Your task to perform on an android device: Go to Maps Image 0: 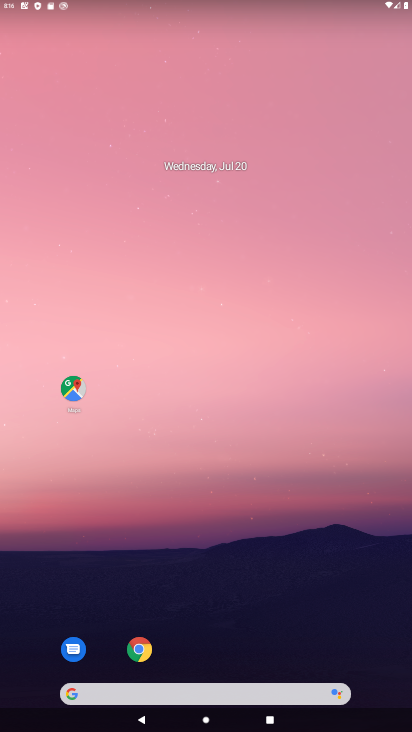
Step 0: click (80, 402)
Your task to perform on an android device: Go to Maps Image 1: 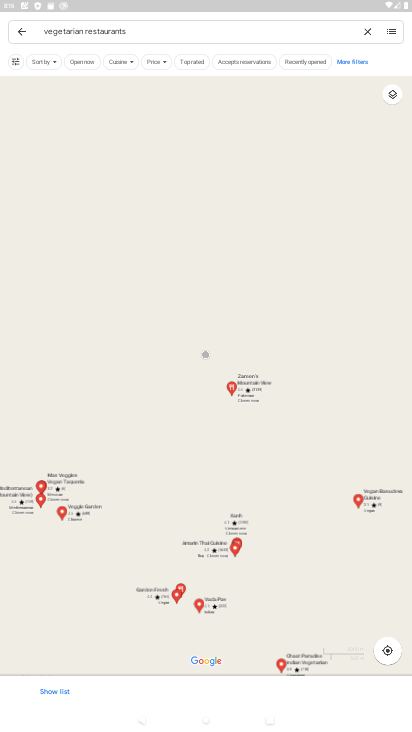
Step 1: task complete